Your task to perform on an android device: turn off airplane mode Image 0: 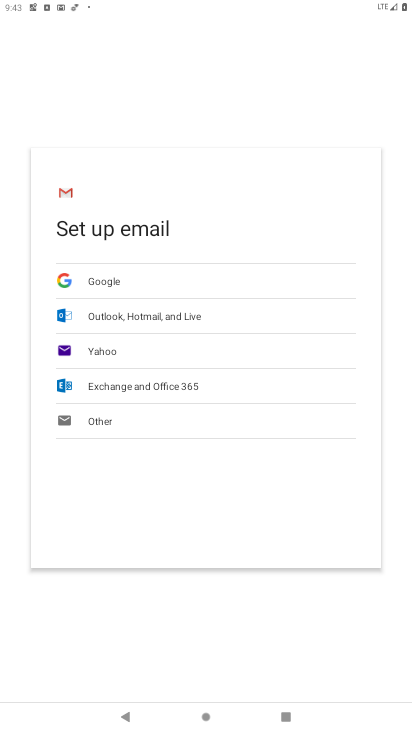
Step 0: press home button
Your task to perform on an android device: turn off airplane mode Image 1: 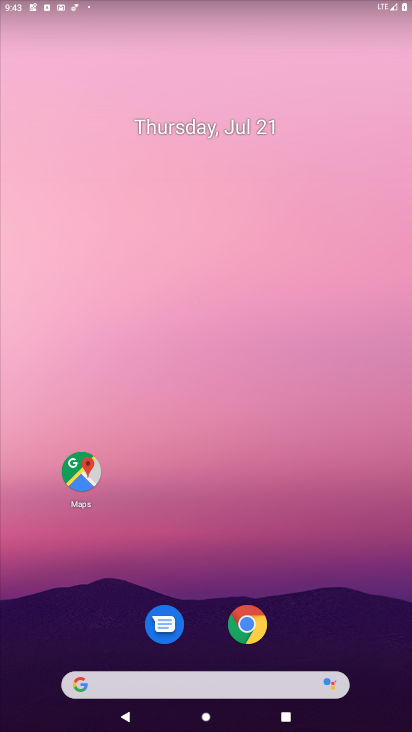
Step 1: drag from (6, 728) to (285, 136)
Your task to perform on an android device: turn off airplane mode Image 2: 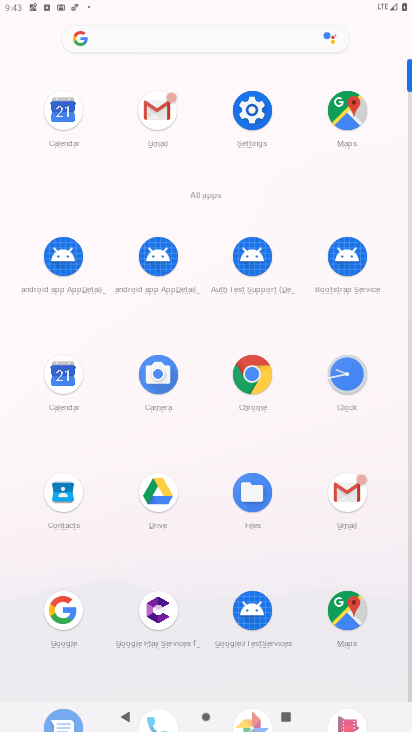
Step 2: click (269, 126)
Your task to perform on an android device: turn off airplane mode Image 3: 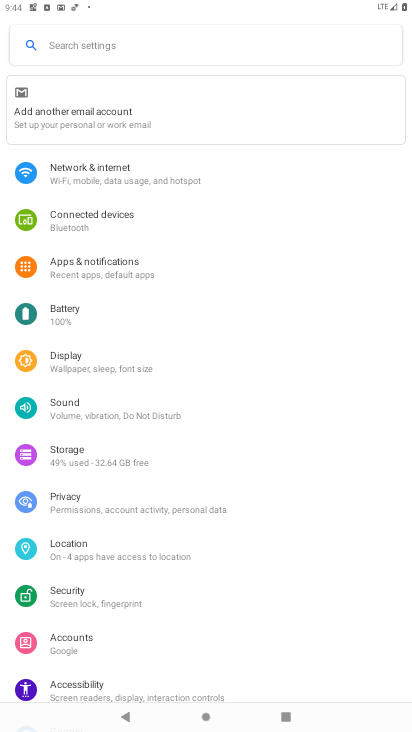
Step 3: task complete